Your task to perform on an android device: Open Youtube and go to "Your channel" Image 0: 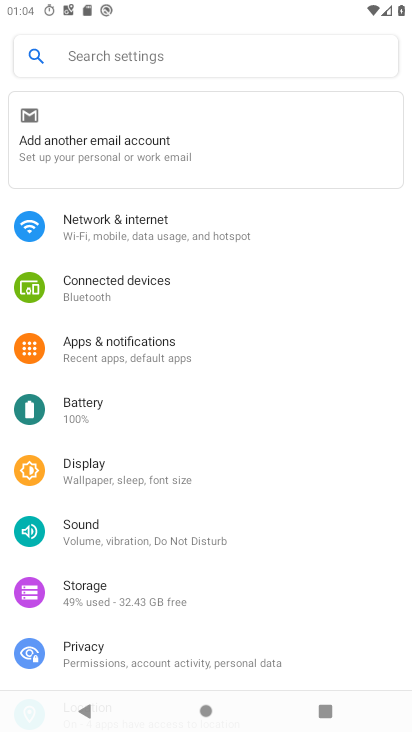
Step 0: press home button
Your task to perform on an android device: Open Youtube and go to "Your channel" Image 1: 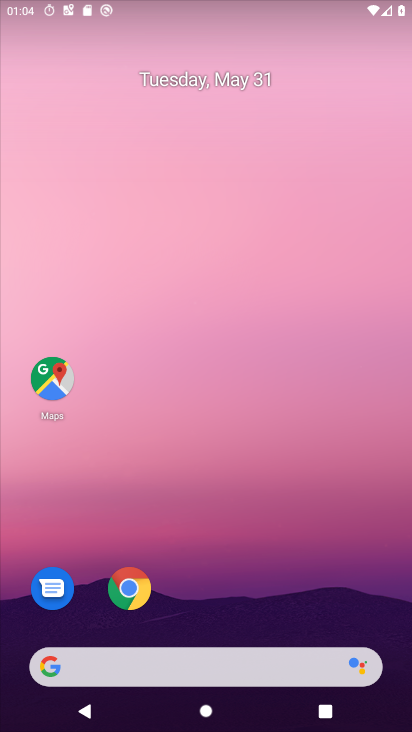
Step 1: drag from (196, 495) to (285, 12)
Your task to perform on an android device: Open Youtube and go to "Your channel" Image 2: 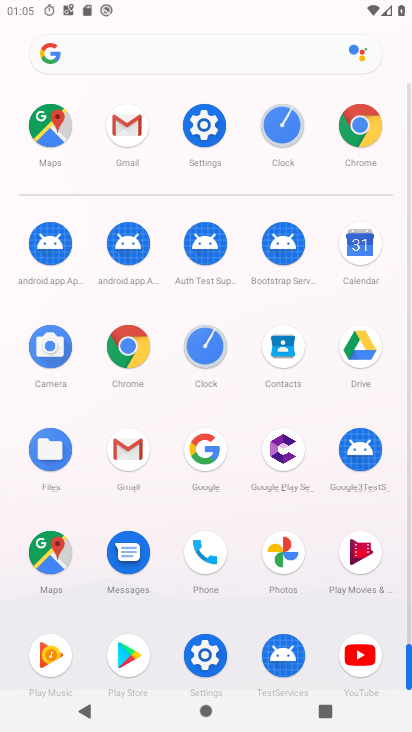
Step 2: click (364, 657)
Your task to perform on an android device: Open Youtube and go to "Your channel" Image 3: 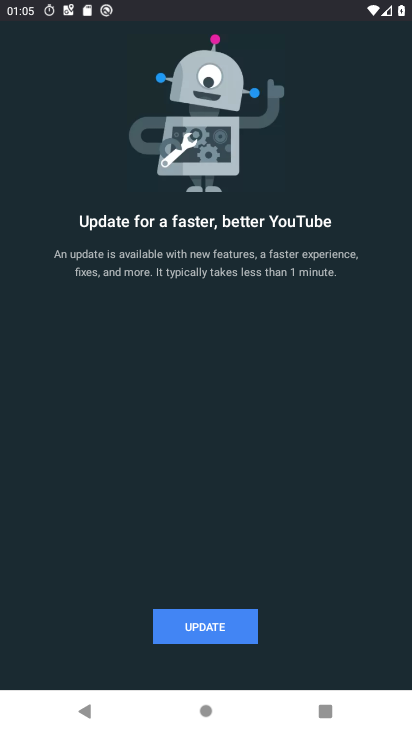
Step 3: click (220, 630)
Your task to perform on an android device: Open Youtube and go to "Your channel" Image 4: 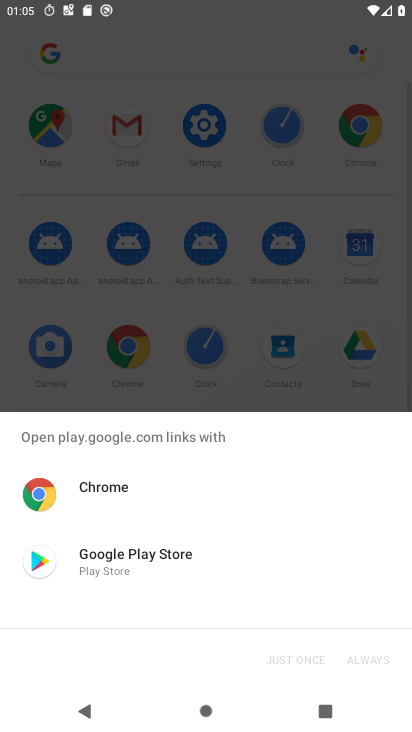
Step 4: click (65, 553)
Your task to perform on an android device: Open Youtube and go to "Your channel" Image 5: 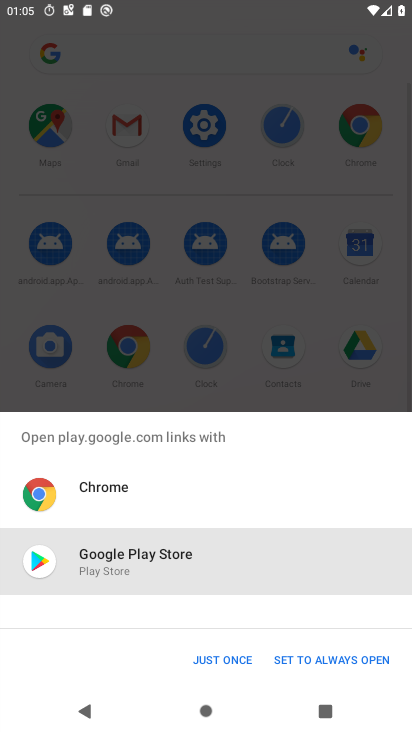
Step 5: click (211, 665)
Your task to perform on an android device: Open Youtube and go to "Your channel" Image 6: 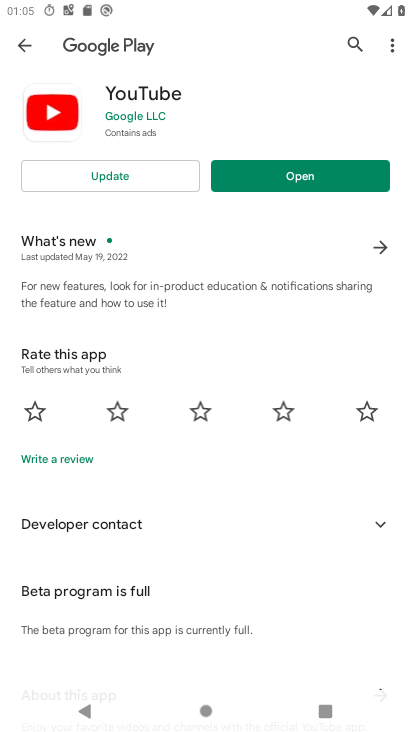
Step 6: click (140, 167)
Your task to perform on an android device: Open Youtube and go to "Your channel" Image 7: 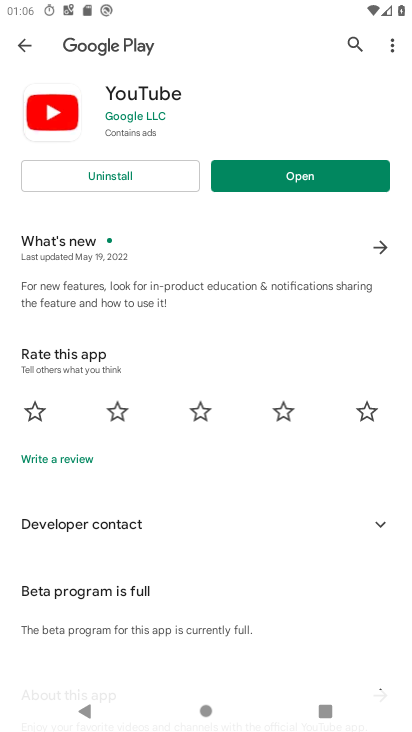
Step 7: click (276, 167)
Your task to perform on an android device: Open Youtube and go to "Your channel" Image 8: 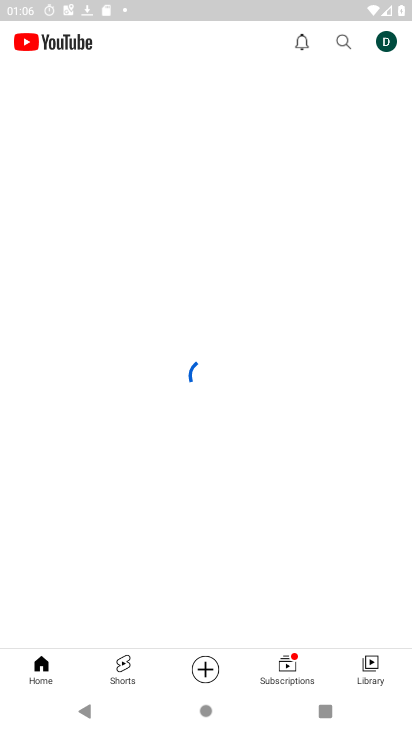
Step 8: click (388, 44)
Your task to perform on an android device: Open Youtube and go to "Your channel" Image 9: 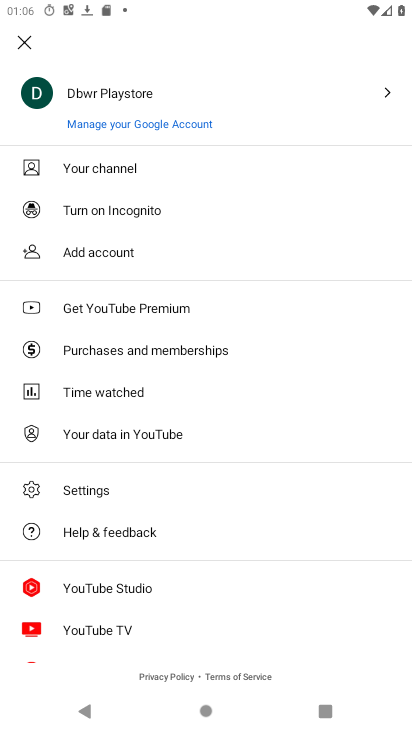
Step 9: click (197, 169)
Your task to perform on an android device: Open Youtube and go to "Your channel" Image 10: 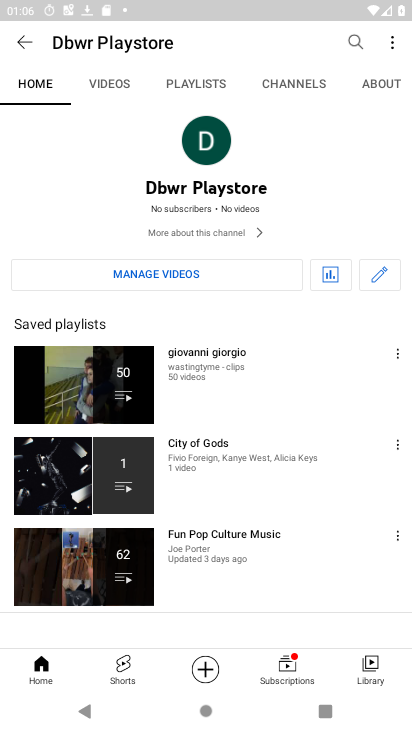
Step 10: task complete